Your task to perform on an android device: Clear all items from cart on newegg. Add razer blade to the cart on newegg, then select checkout. Image 0: 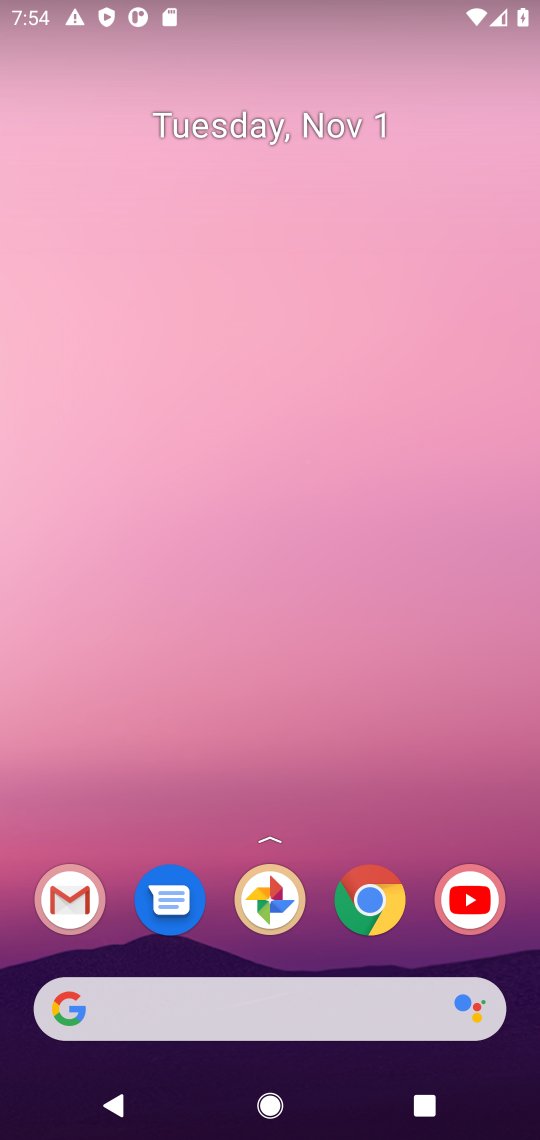
Step 0: click (292, 187)
Your task to perform on an android device: Clear all items from cart on newegg. Add razer blade to the cart on newegg, then select checkout. Image 1: 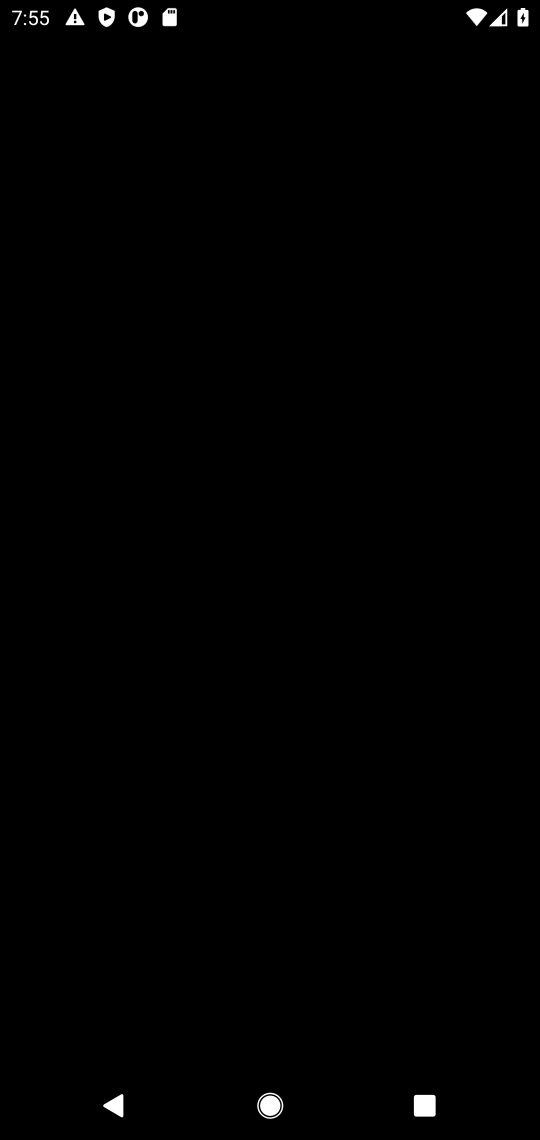
Step 1: press home button
Your task to perform on an android device: Clear all items from cart on newegg. Add razer blade to the cart on newegg, then select checkout. Image 2: 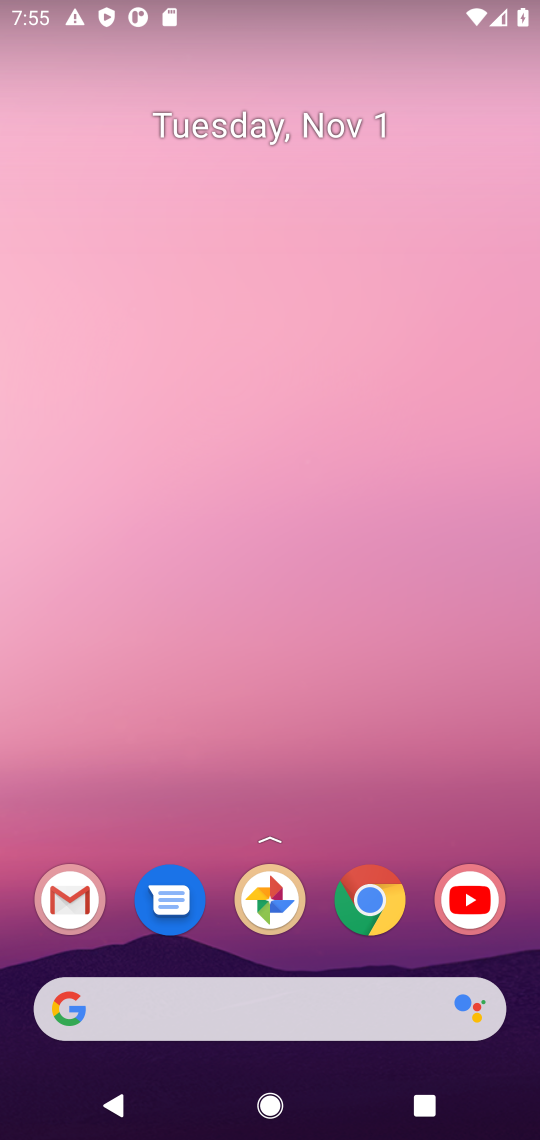
Step 2: drag from (318, 950) to (299, 105)
Your task to perform on an android device: Clear all items from cart on newegg. Add razer blade to the cart on newegg, then select checkout. Image 3: 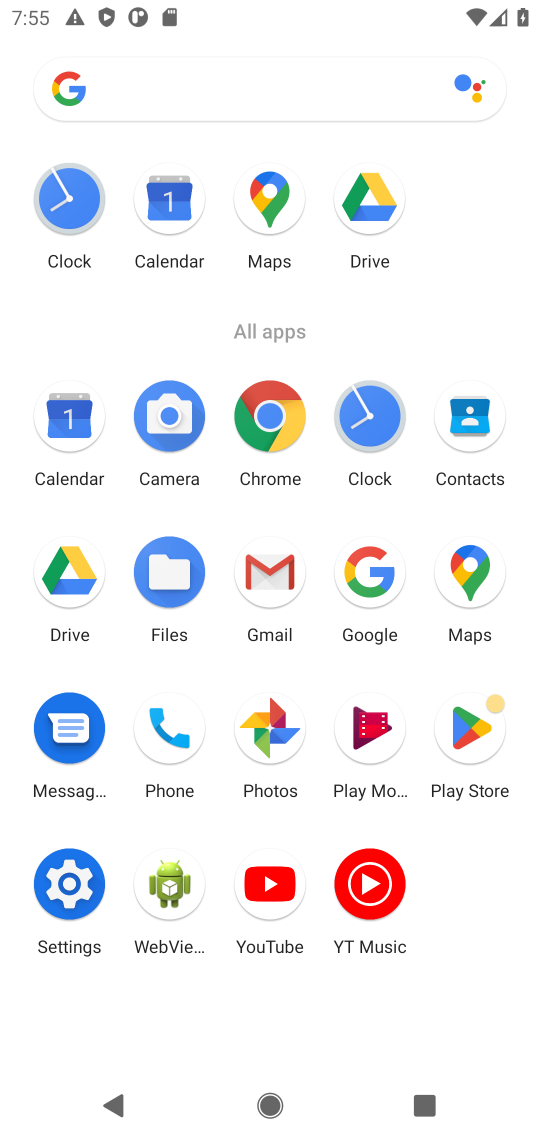
Step 3: click (263, 422)
Your task to perform on an android device: Clear all items from cart on newegg. Add razer blade to the cart on newegg, then select checkout. Image 4: 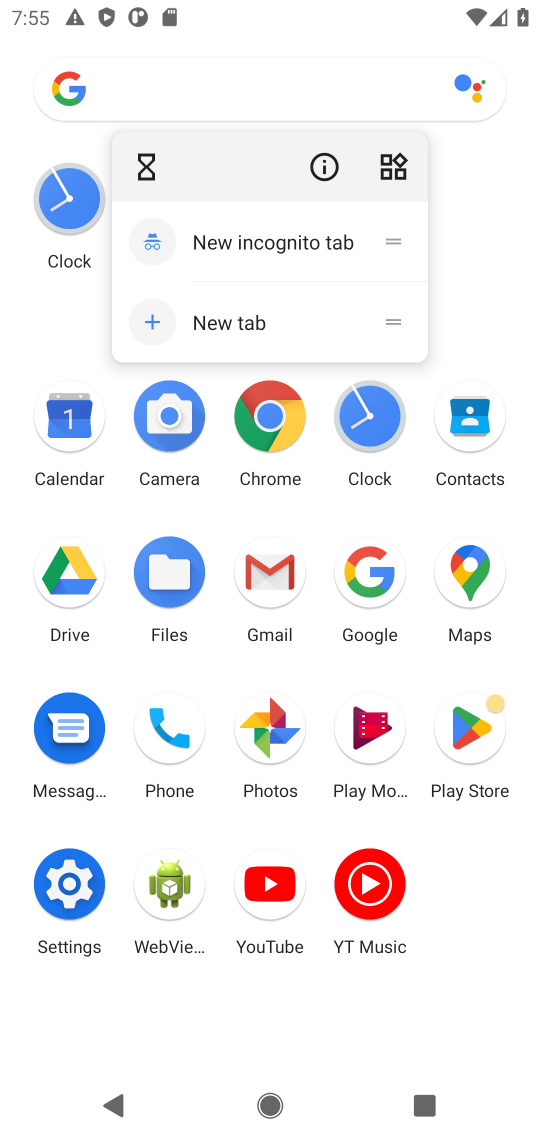
Step 4: click (265, 419)
Your task to perform on an android device: Clear all items from cart on newegg. Add razer blade to the cart on newegg, then select checkout. Image 5: 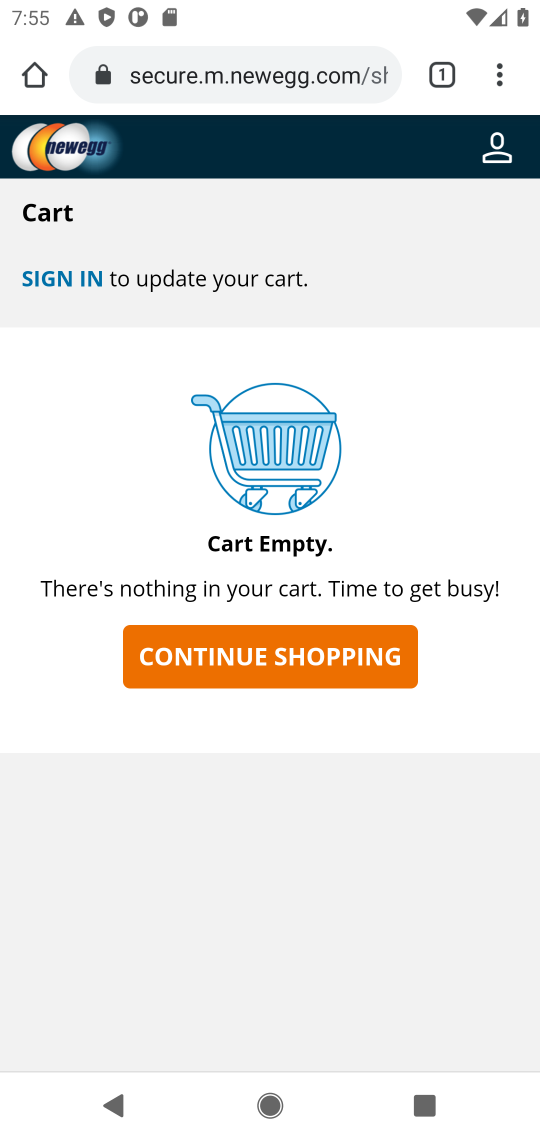
Step 5: click (264, 90)
Your task to perform on an android device: Clear all items from cart on newegg. Add razer blade to the cart on newegg, then select checkout. Image 6: 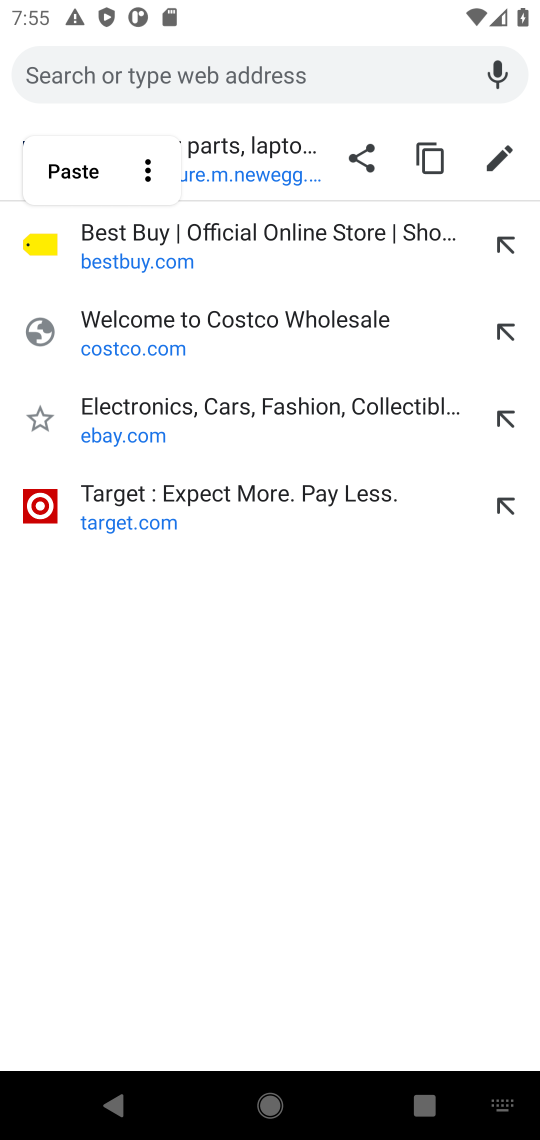
Step 6: type "newegg.com"
Your task to perform on an android device: Clear all items from cart on newegg. Add razer blade to the cart on newegg, then select checkout. Image 7: 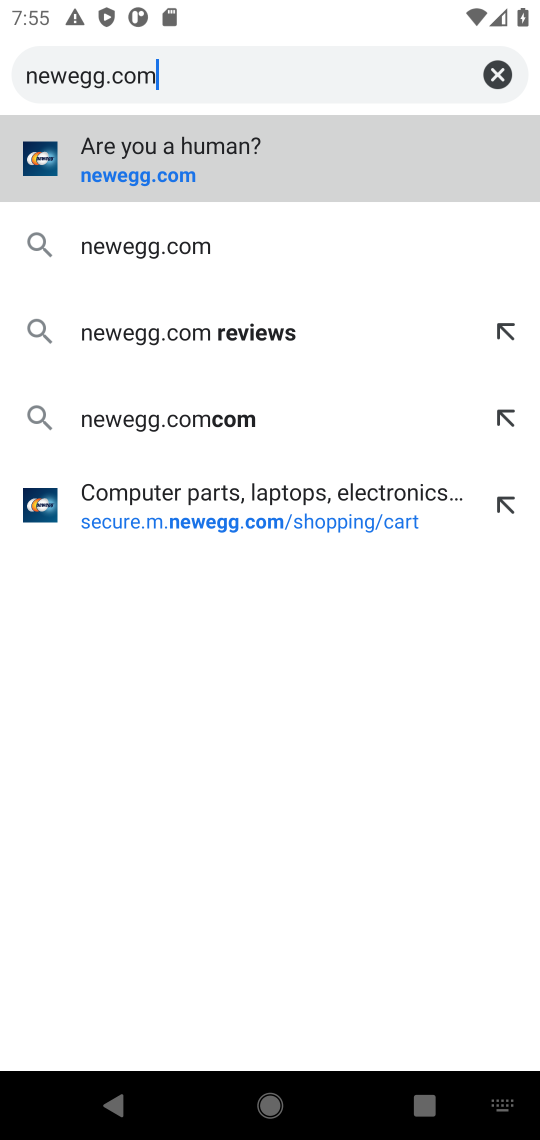
Step 7: press enter
Your task to perform on an android device: Clear all items from cart on newegg. Add razer blade to the cart on newegg, then select checkout. Image 8: 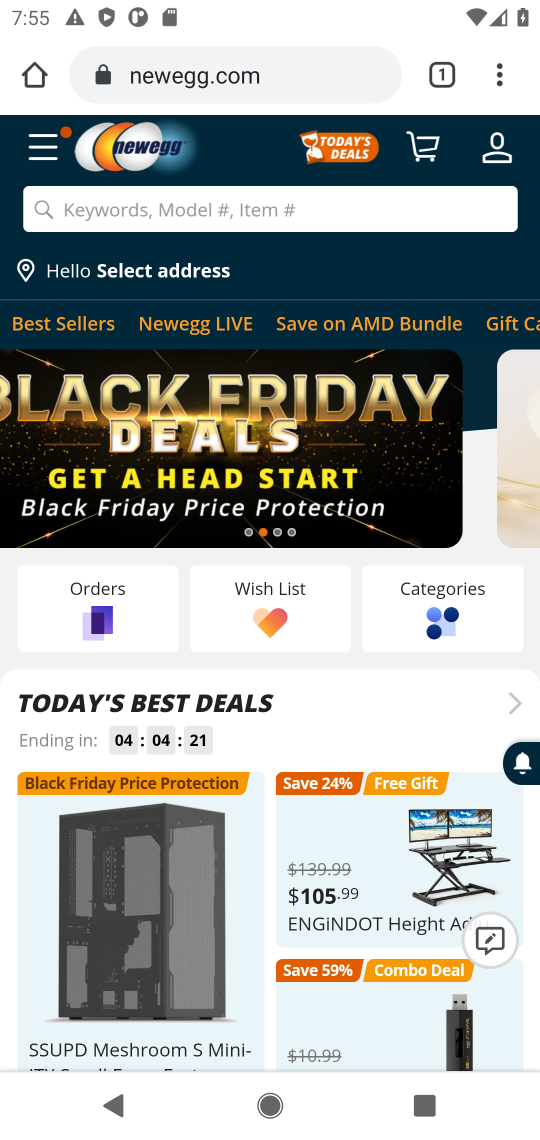
Step 8: click (423, 152)
Your task to perform on an android device: Clear all items from cart on newegg. Add razer blade to the cart on newegg, then select checkout. Image 9: 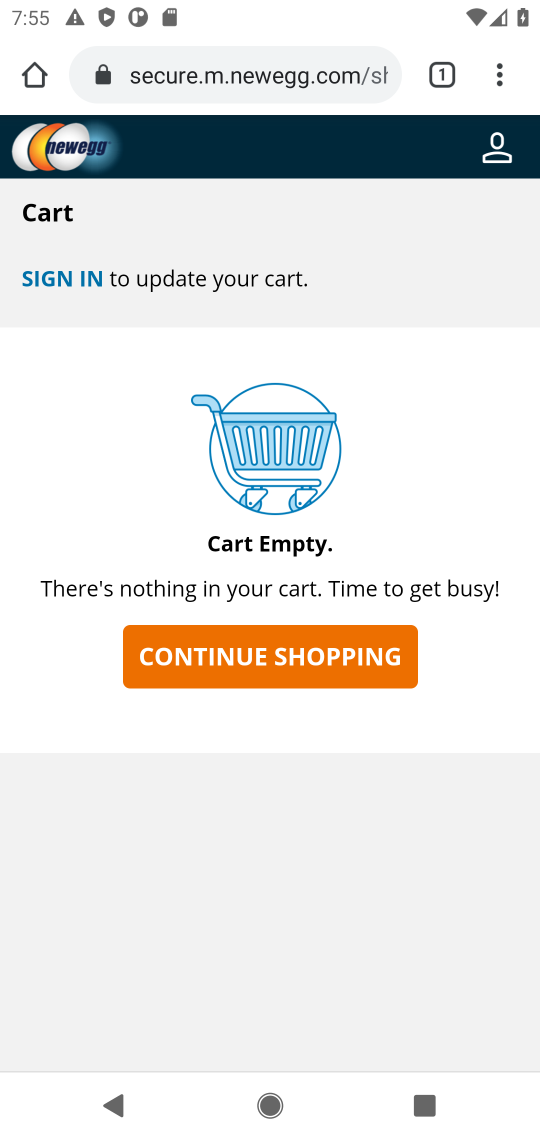
Step 9: click (239, 673)
Your task to perform on an android device: Clear all items from cart on newegg. Add razer blade to the cart on newegg, then select checkout. Image 10: 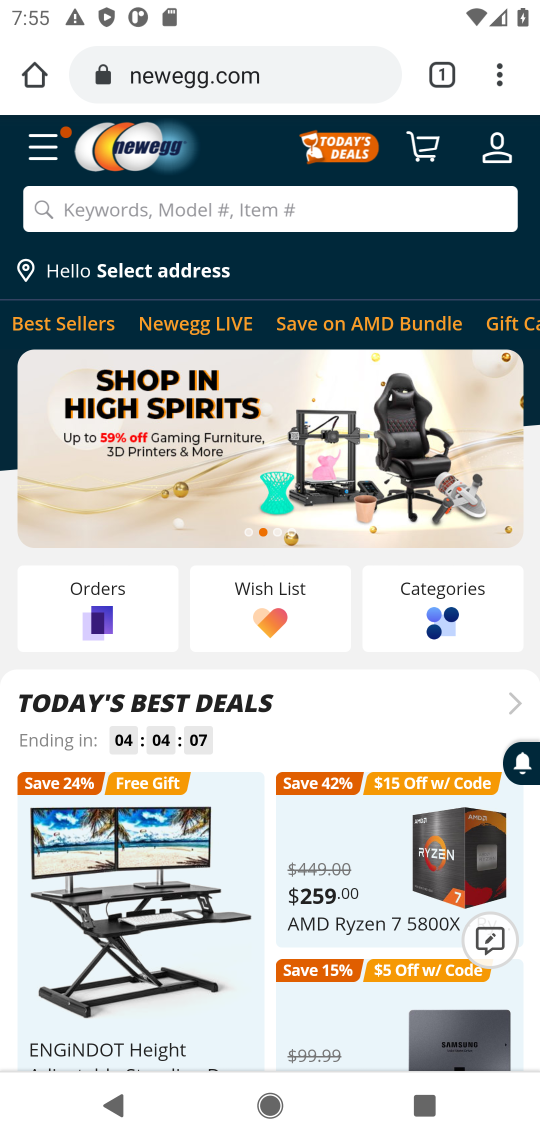
Step 10: click (194, 214)
Your task to perform on an android device: Clear all items from cart on newegg. Add razer blade to the cart on newegg, then select checkout. Image 11: 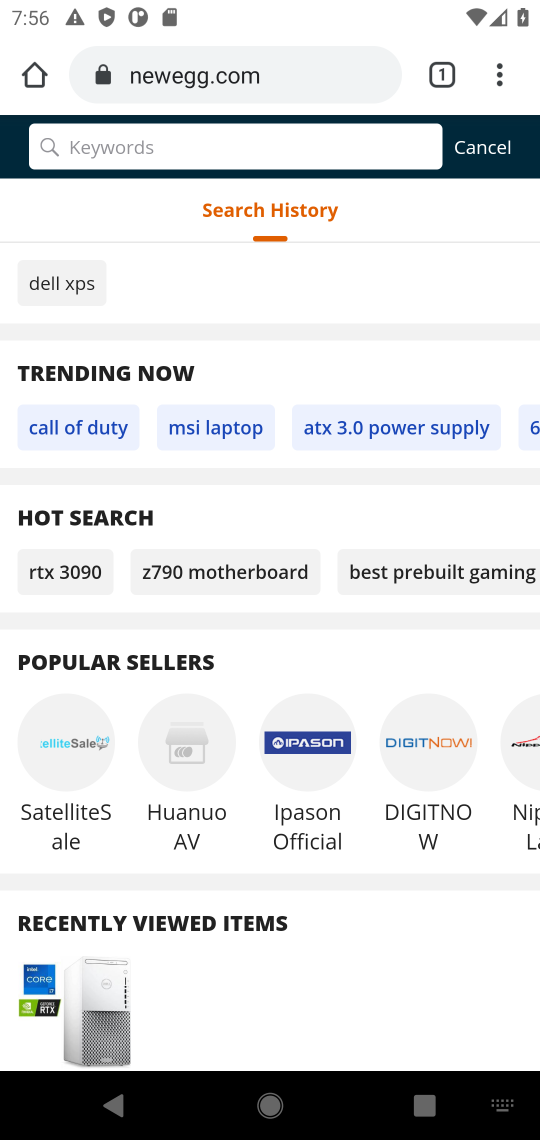
Step 11: type "razer blade"
Your task to perform on an android device: Clear all items from cart on newegg. Add razer blade to the cart on newegg, then select checkout. Image 12: 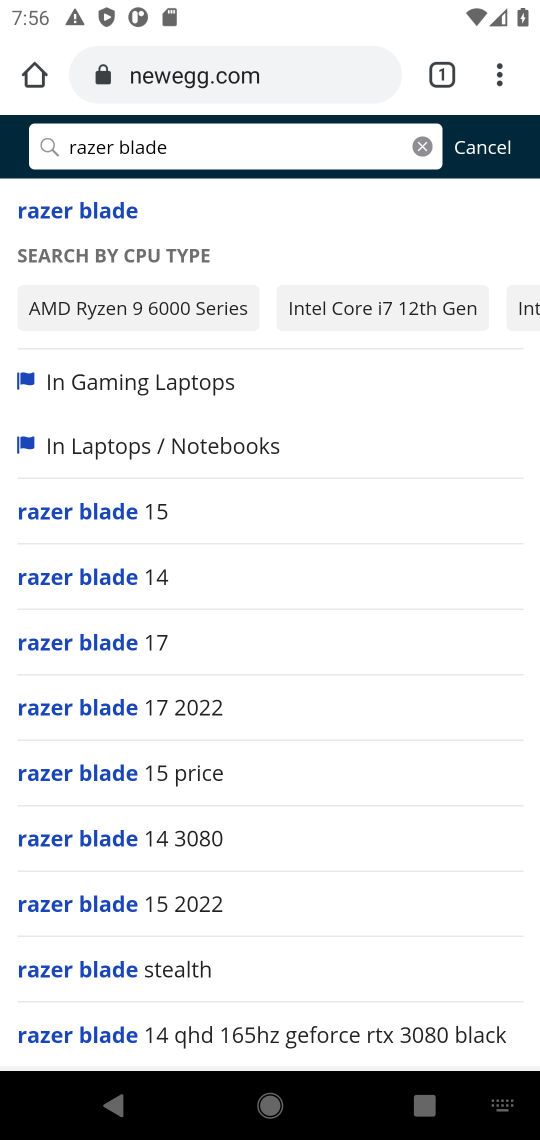
Step 12: press enter
Your task to perform on an android device: Clear all items from cart on newegg. Add razer blade to the cart on newegg, then select checkout. Image 13: 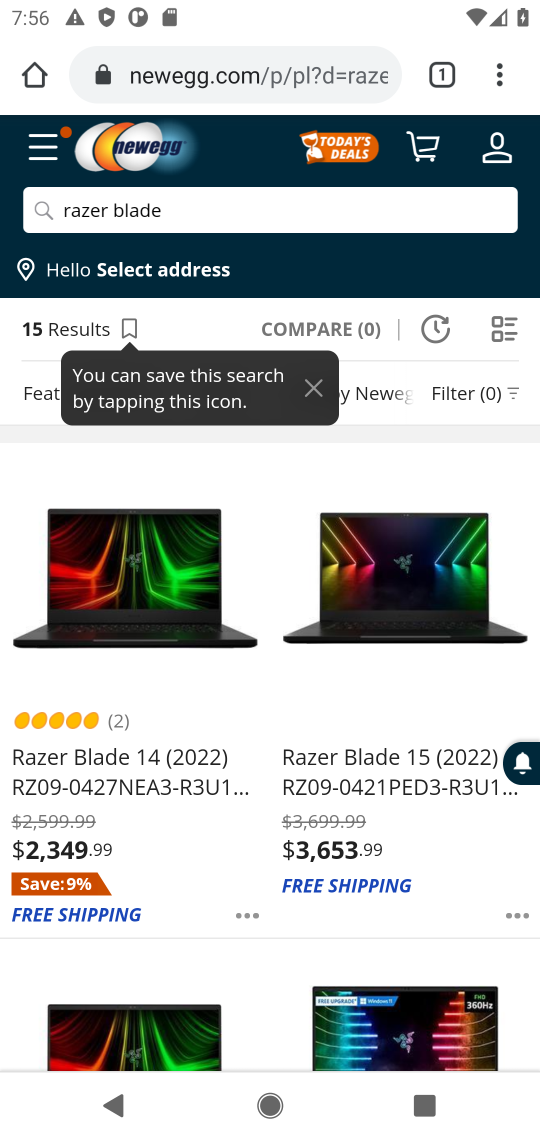
Step 13: click (117, 778)
Your task to perform on an android device: Clear all items from cart on newegg. Add razer blade to the cart on newegg, then select checkout. Image 14: 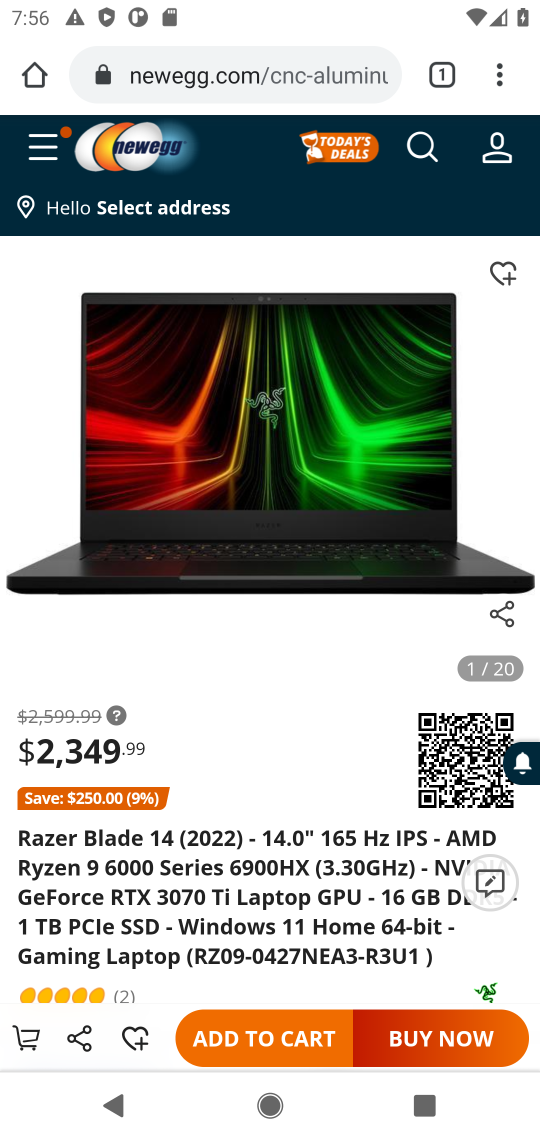
Step 14: click (287, 1042)
Your task to perform on an android device: Clear all items from cart on newegg. Add razer blade to the cart on newegg, then select checkout. Image 15: 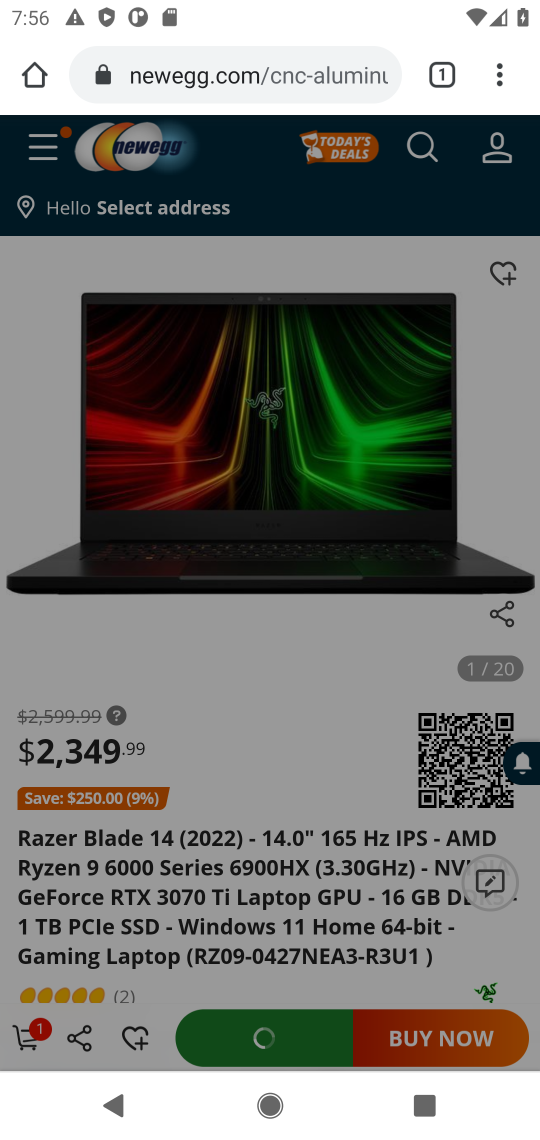
Step 15: click (30, 1029)
Your task to perform on an android device: Clear all items from cart on newegg. Add razer blade to the cart on newegg, then select checkout. Image 16: 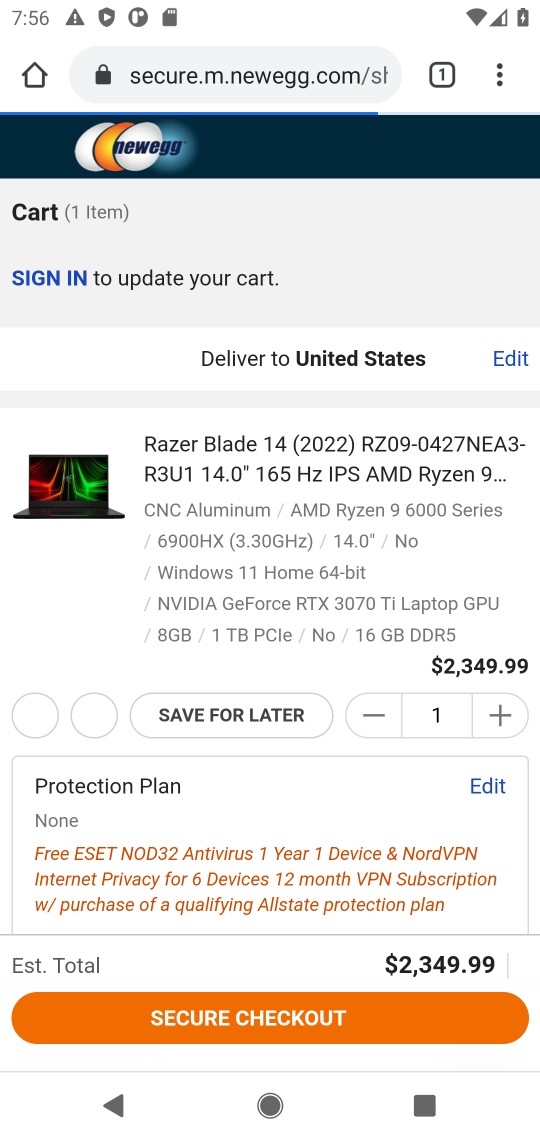
Step 16: click (30, 1029)
Your task to perform on an android device: Clear all items from cart on newegg. Add razer blade to the cart on newegg, then select checkout. Image 17: 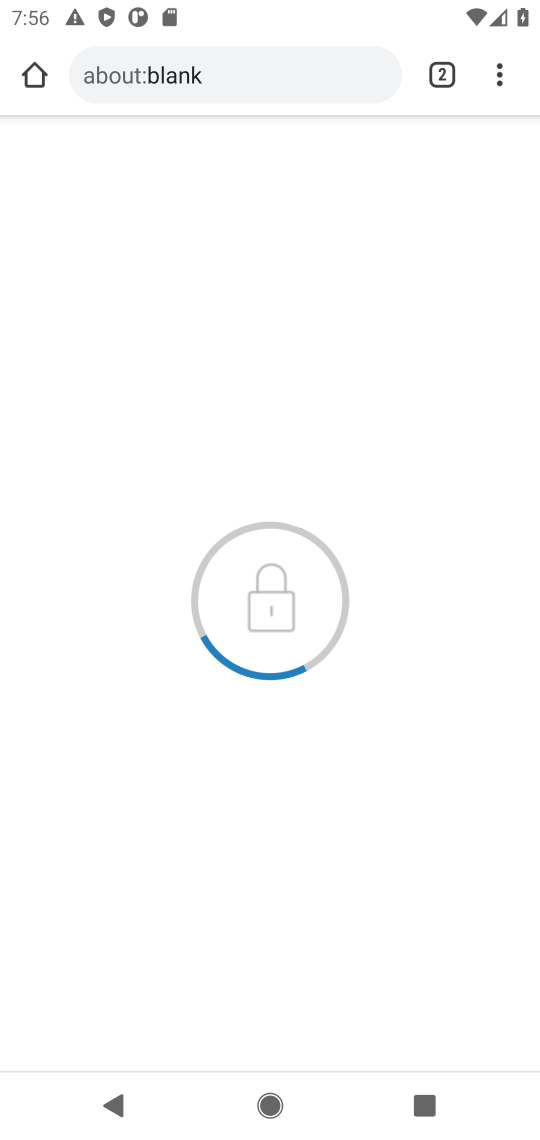
Step 17: press back button
Your task to perform on an android device: Clear all items from cart on newegg. Add razer blade to the cart on newegg, then select checkout. Image 18: 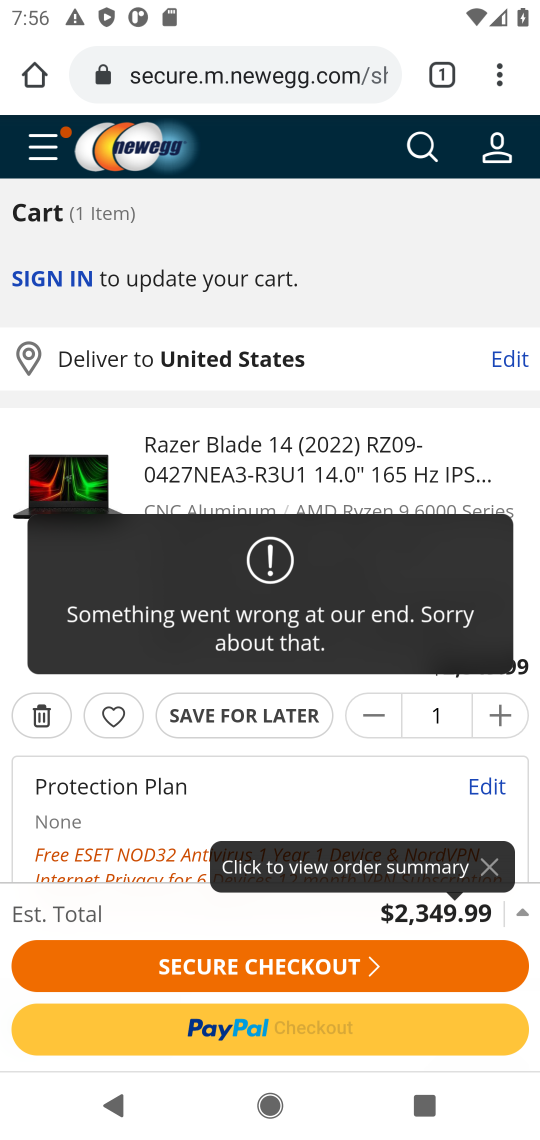
Step 18: click (317, 974)
Your task to perform on an android device: Clear all items from cart on newegg. Add razer blade to the cart on newegg, then select checkout. Image 19: 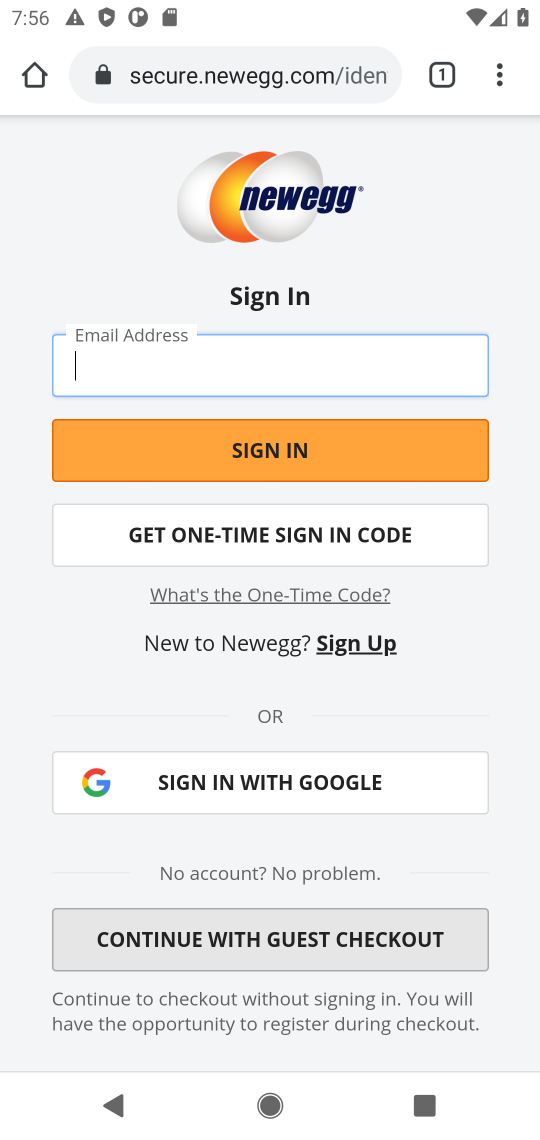
Step 19: task complete